Your task to perform on an android device: turn off picture-in-picture Image 0: 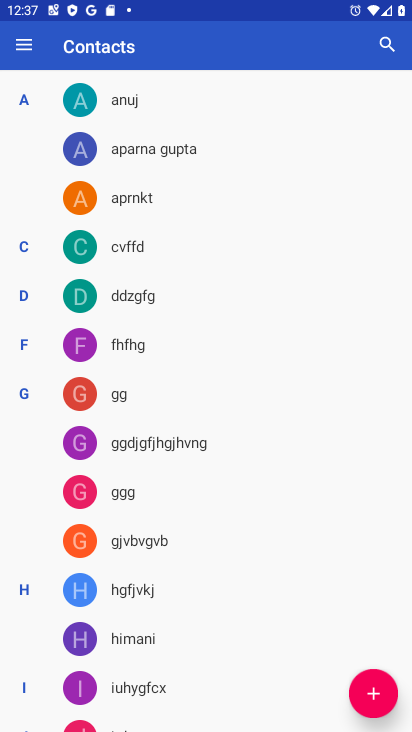
Step 0: press home button
Your task to perform on an android device: turn off picture-in-picture Image 1: 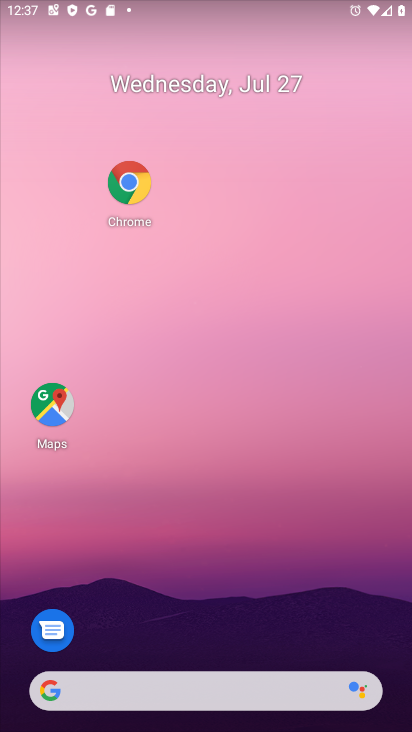
Step 1: click (127, 171)
Your task to perform on an android device: turn off picture-in-picture Image 2: 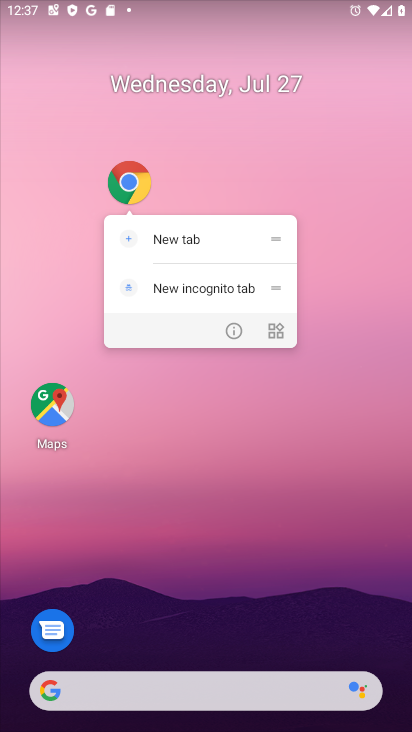
Step 2: click (229, 340)
Your task to perform on an android device: turn off picture-in-picture Image 3: 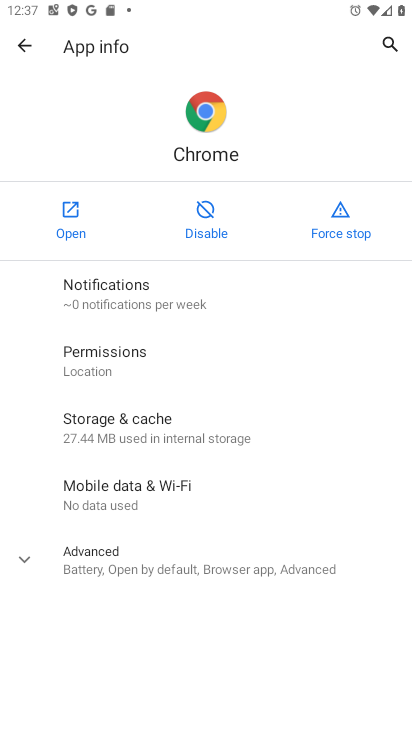
Step 3: click (182, 552)
Your task to perform on an android device: turn off picture-in-picture Image 4: 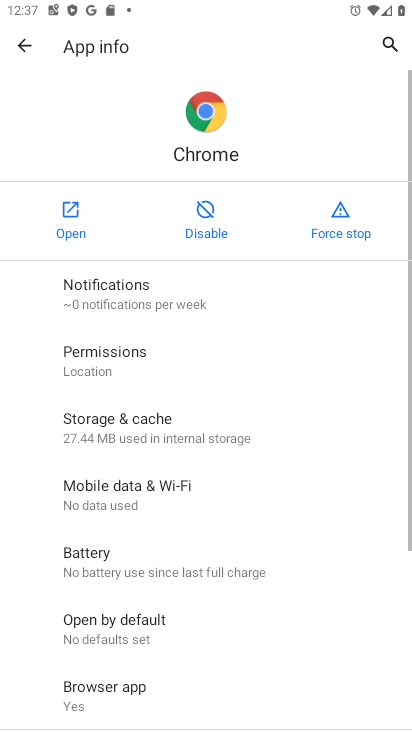
Step 4: drag from (188, 684) to (362, 3)
Your task to perform on an android device: turn off picture-in-picture Image 5: 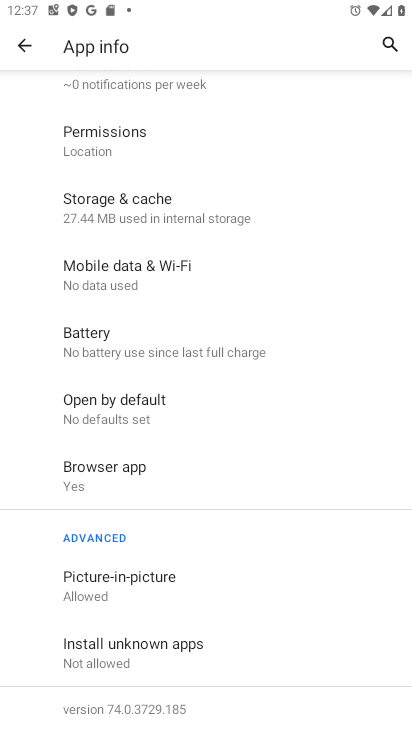
Step 5: click (123, 582)
Your task to perform on an android device: turn off picture-in-picture Image 6: 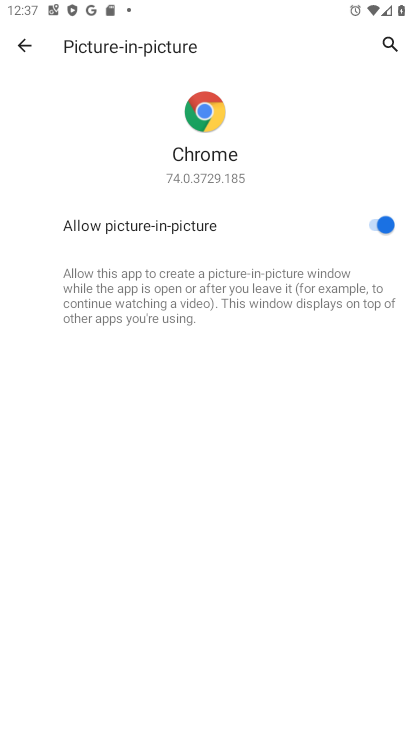
Step 6: click (384, 228)
Your task to perform on an android device: turn off picture-in-picture Image 7: 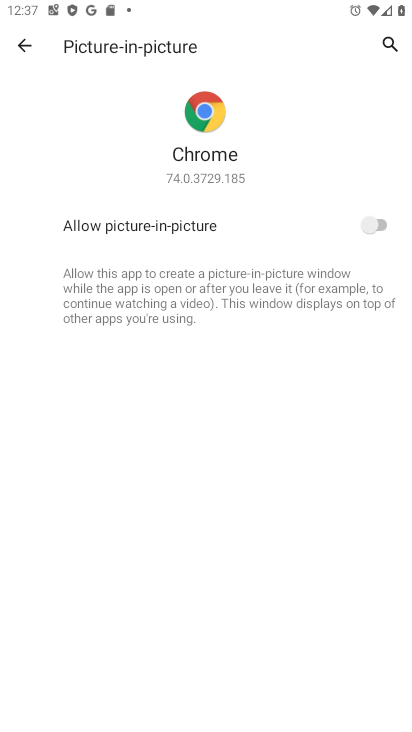
Step 7: task complete